Your task to perform on an android device: open app "Airtel Thanks" (install if not already installed) Image 0: 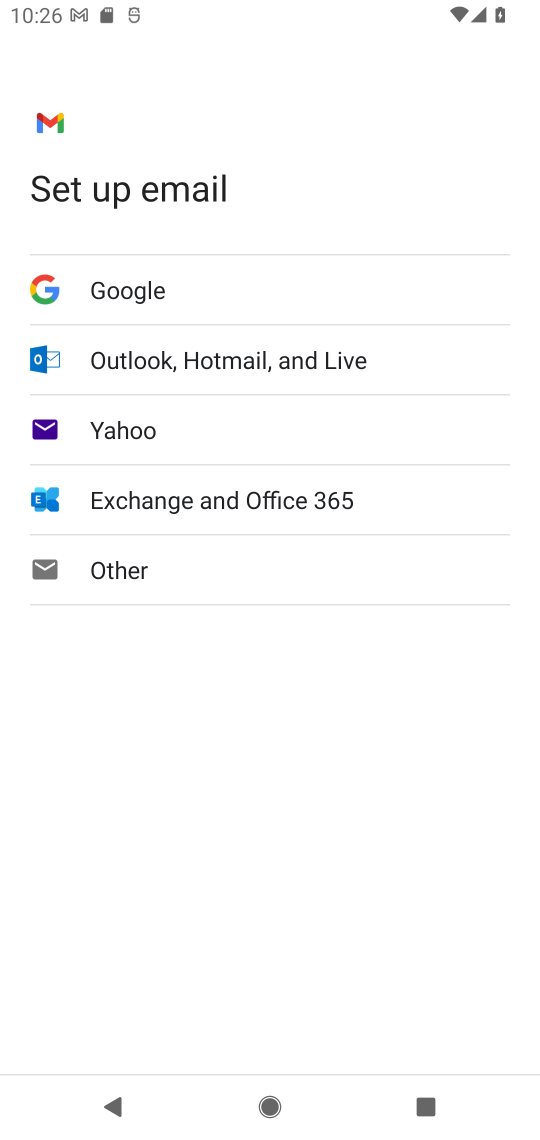
Step 0: press home button
Your task to perform on an android device: open app "Airtel Thanks" (install if not already installed) Image 1: 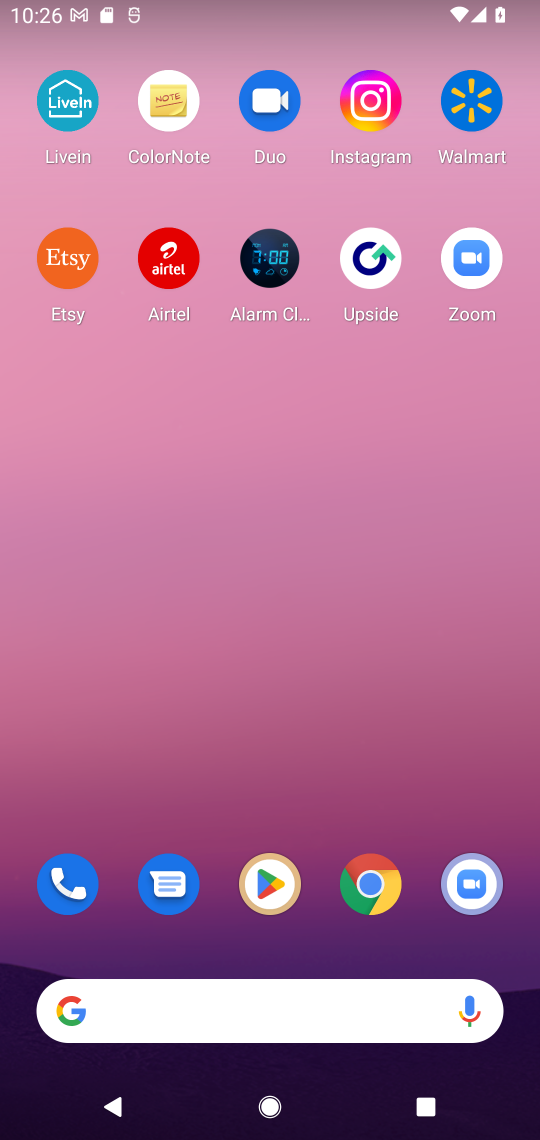
Step 1: click (151, 289)
Your task to perform on an android device: open app "Airtel Thanks" (install if not already installed) Image 2: 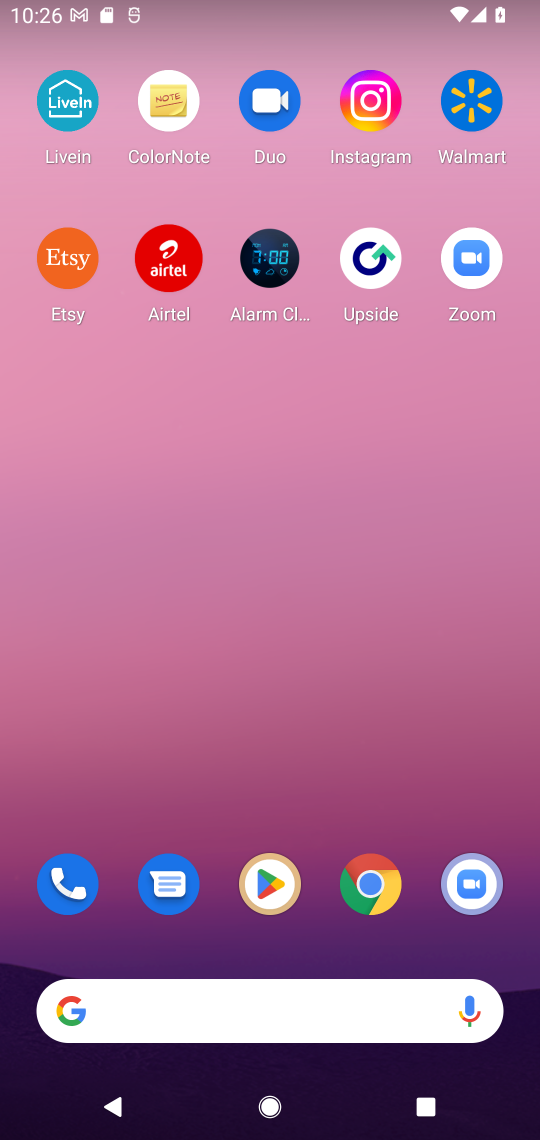
Step 2: task complete